Your task to perform on an android device: Open eBay Image 0: 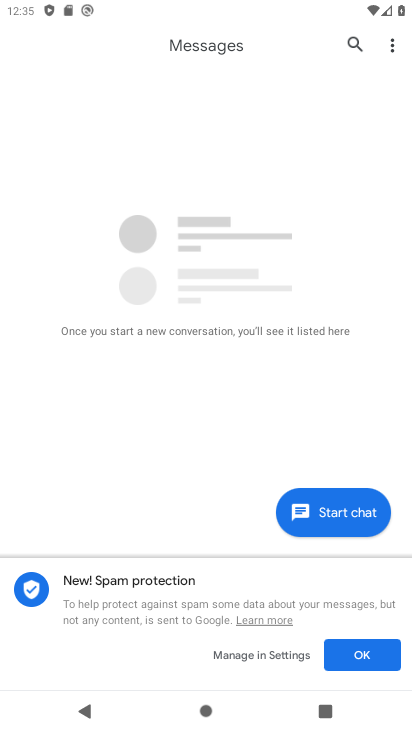
Step 0: press home button
Your task to perform on an android device: Open eBay Image 1: 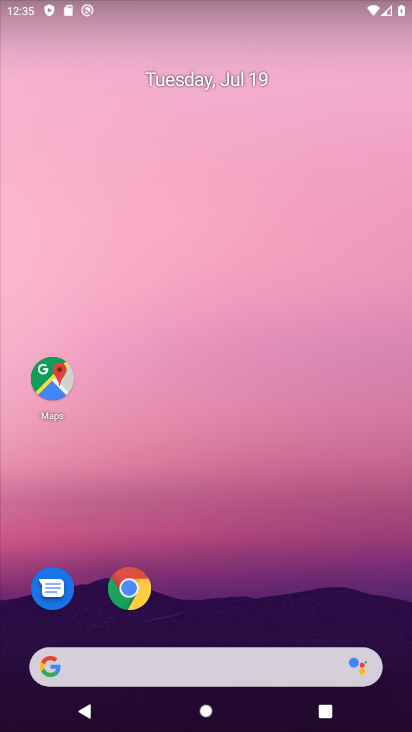
Step 1: drag from (217, 599) to (221, 67)
Your task to perform on an android device: Open eBay Image 2: 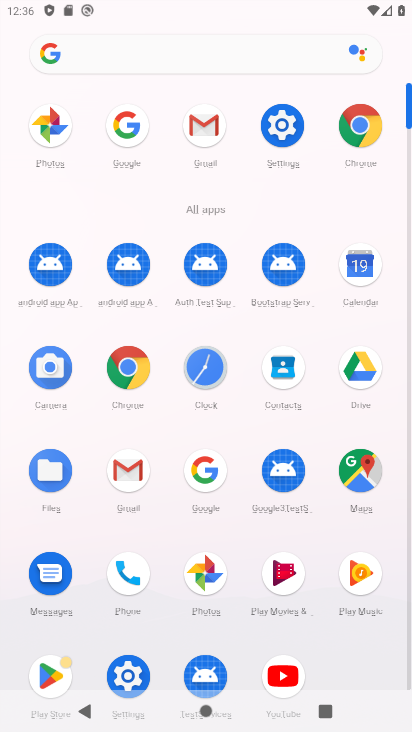
Step 2: click (374, 126)
Your task to perform on an android device: Open eBay Image 3: 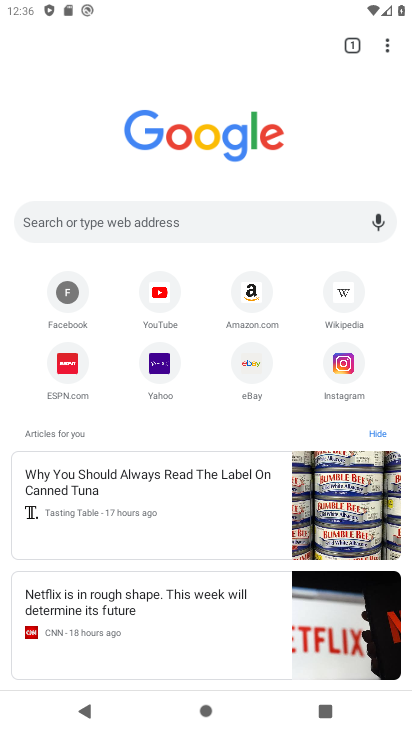
Step 3: click (247, 376)
Your task to perform on an android device: Open eBay Image 4: 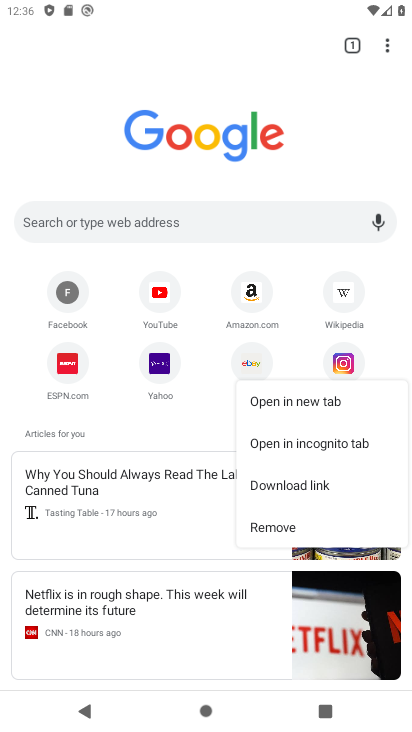
Step 4: click (242, 354)
Your task to perform on an android device: Open eBay Image 5: 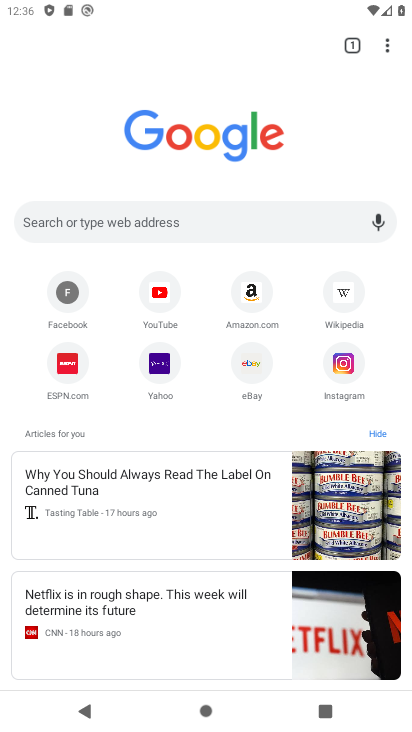
Step 5: click (243, 360)
Your task to perform on an android device: Open eBay Image 6: 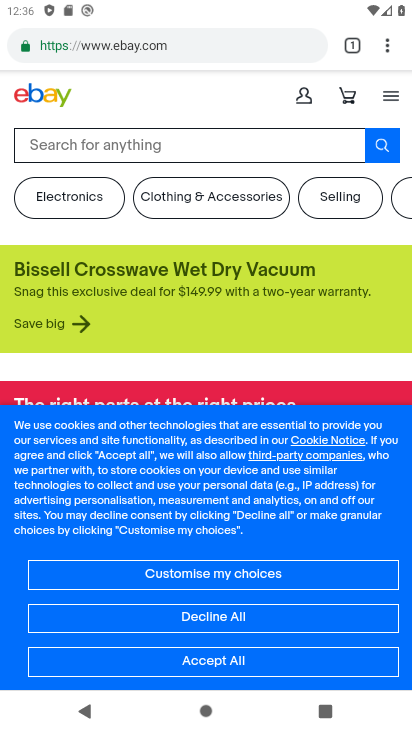
Step 6: task complete